Your task to perform on an android device: see sites visited before in the chrome app Image 0: 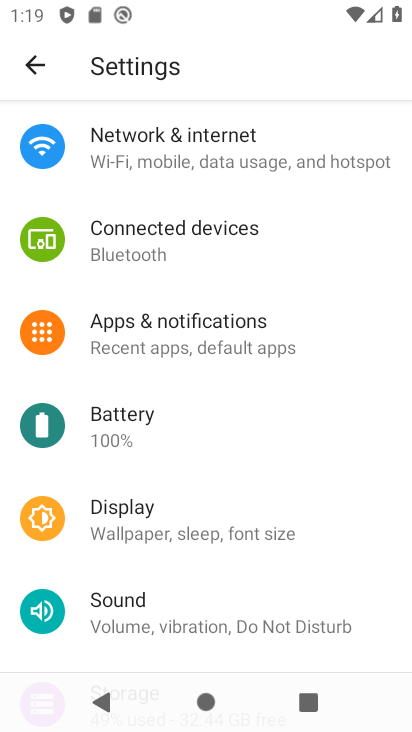
Step 0: press home button
Your task to perform on an android device: see sites visited before in the chrome app Image 1: 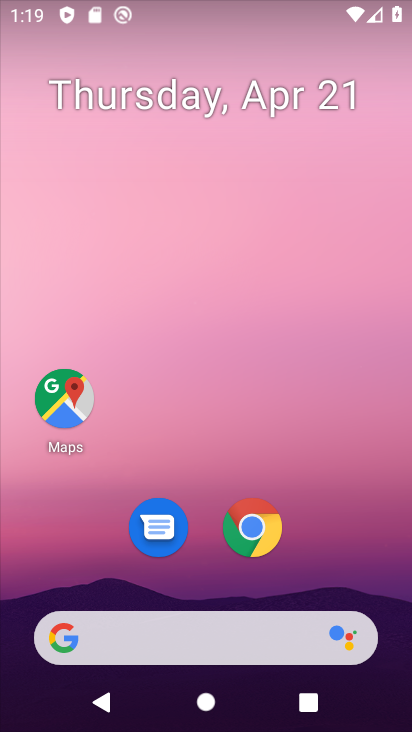
Step 1: drag from (332, 554) to (347, 95)
Your task to perform on an android device: see sites visited before in the chrome app Image 2: 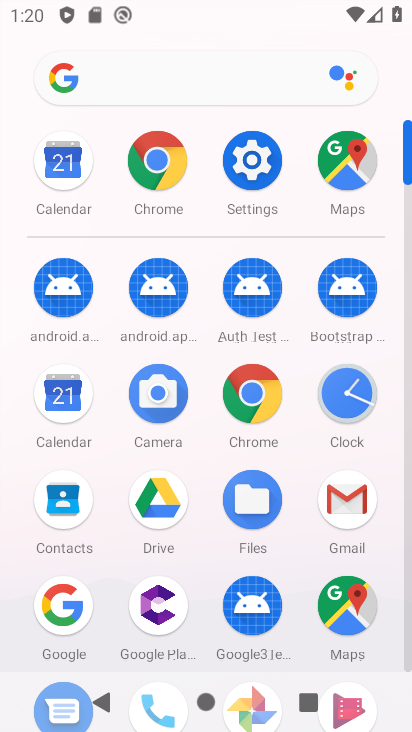
Step 2: click (249, 394)
Your task to perform on an android device: see sites visited before in the chrome app Image 3: 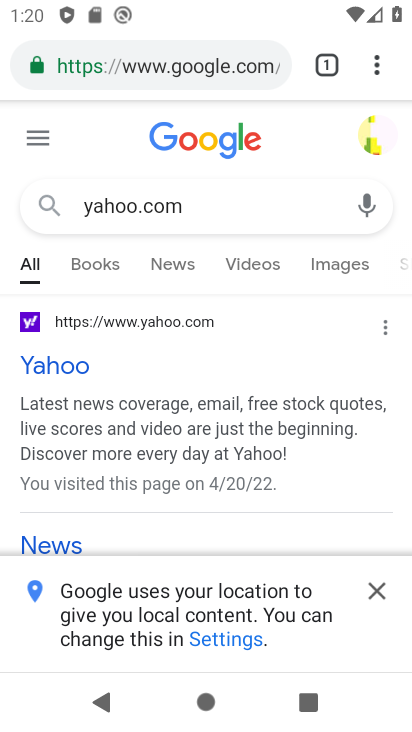
Step 3: click (377, 63)
Your task to perform on an android device: see sites visited before in the chrome app Image 4: 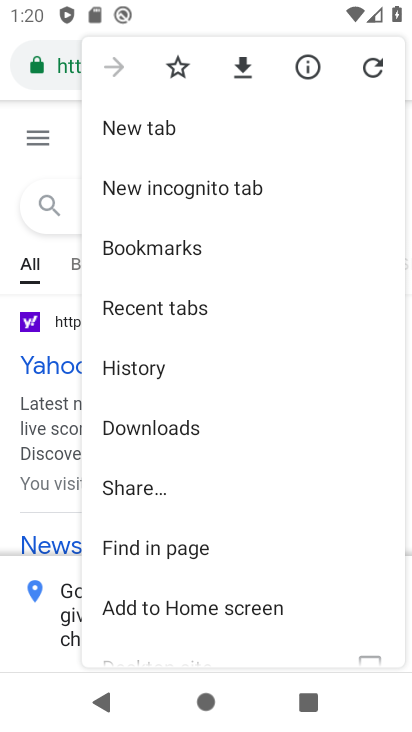
Step 4: drag from (302, 507) to (304, 386)
Your task to perform on an android device: see sites visited before in the chrome app Image 5: 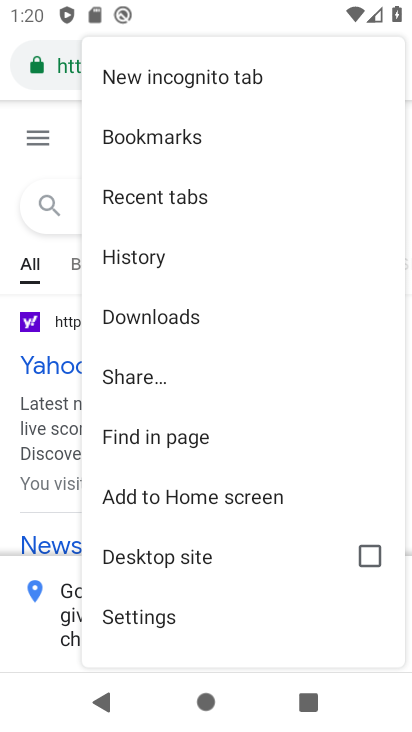
Step 5: drag from (284, 567) to (317, 391)
Your task to perform on an android device: see sites visited before in the chrome app Image 6: 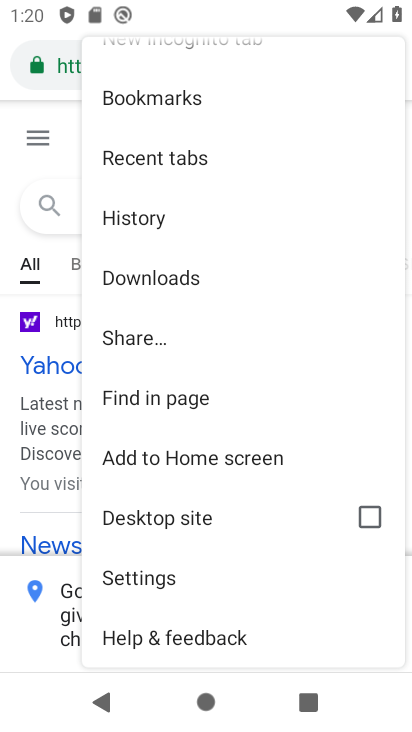
Step 6: drag from (321, 293) to (324, 421)
Your task to perform on an android device: see sites visited before in the chrome app Image 7: 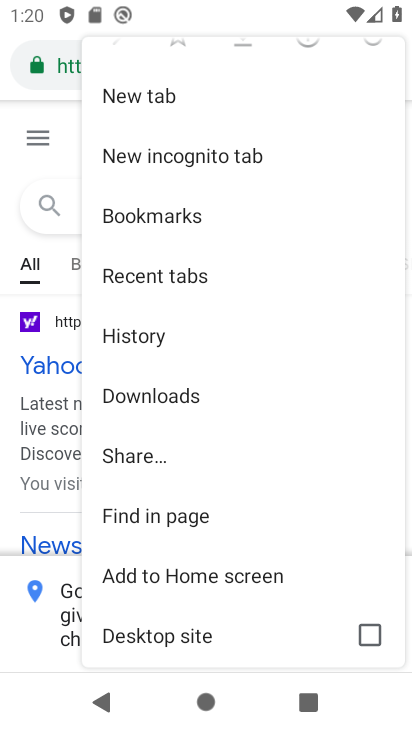
Step 7: drag from (338, 295) to (332, 434)
Your task to perform on an android device: see sites visited before in the chrome app Image 8: 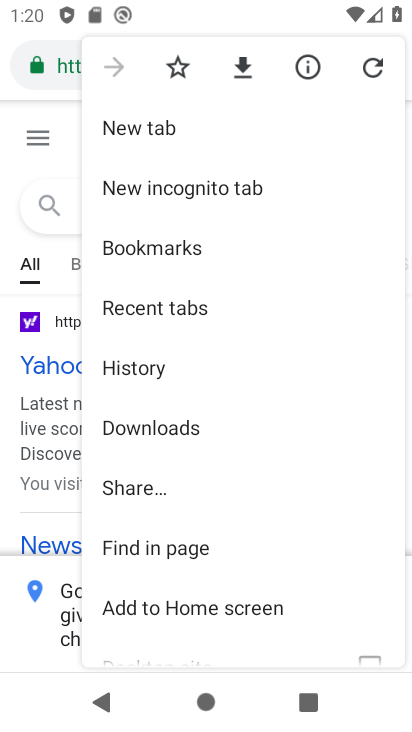
Step 8: click (144, 370)
Your task to perform on an android device: see sites visited before in the chrome app Image 9: 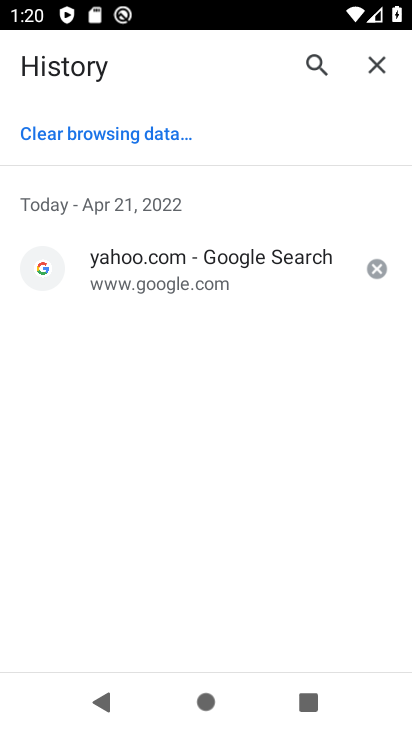
Step 9: task complete